Your task to perform on an android device: Go to Maps Image 0: 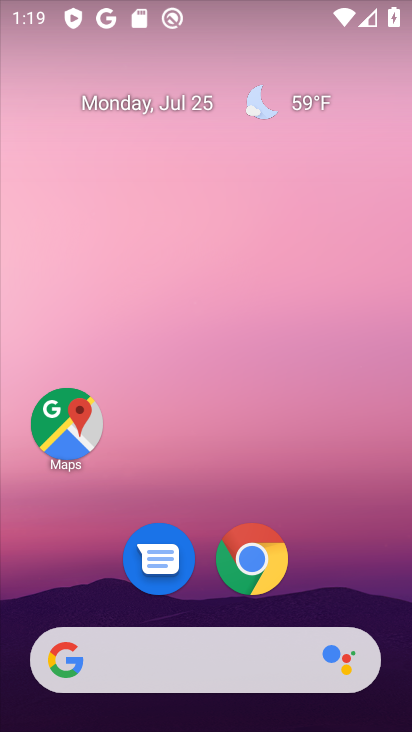
Step 0: click (70, 428)
Your task to perform on an android device: Go to Maps Image 1: 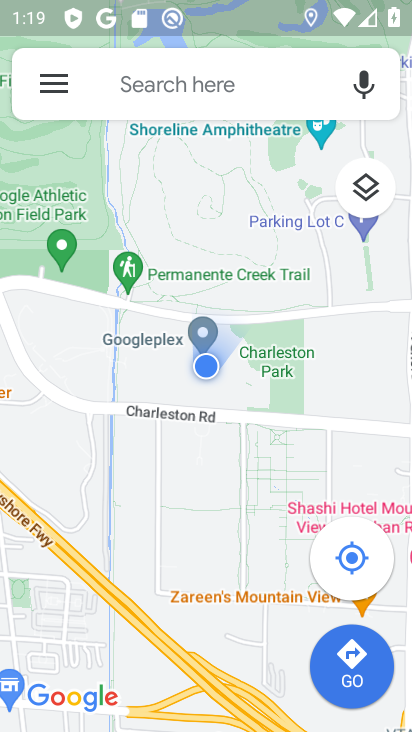
Step 1: task complete